Your task to perform on an android device: Go to notification settings Image 0: 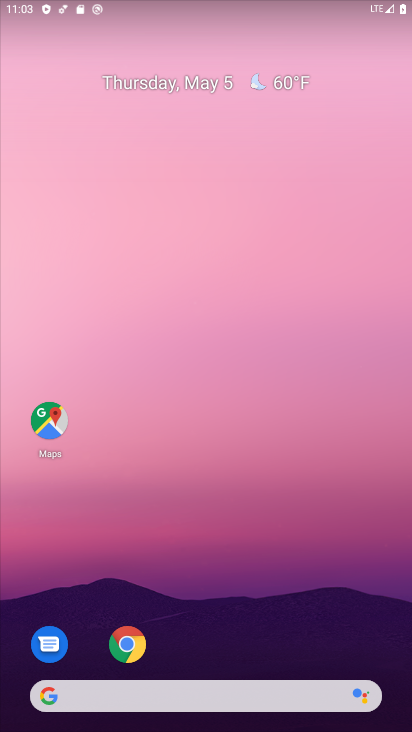
Step 0: drag from (380, 634) to (371, 103)
Your task to perform on an android device: Go to notification settings Image 1: 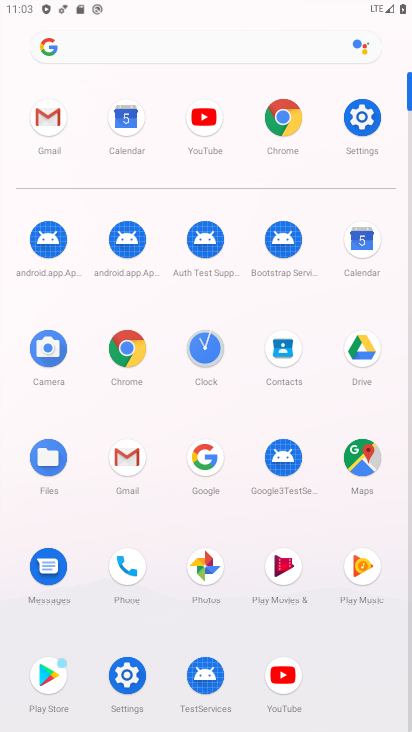
Step 1: click (131, 669)
Your task to perform on an android device: Go to notification settings Image 2: 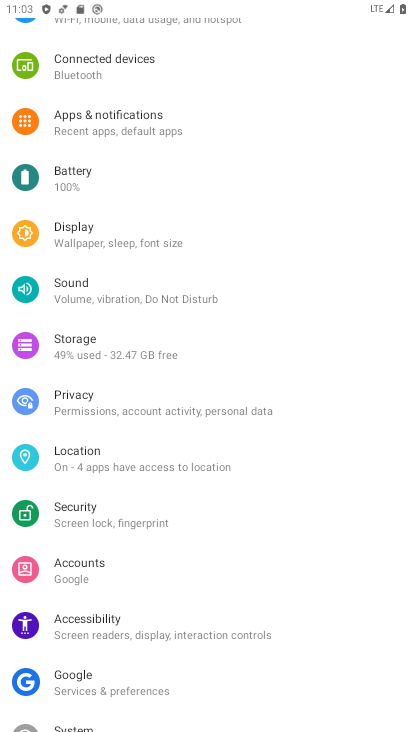
Step 2: drag from (220, 495) to (264, 199)
Your task to perform on an android device: Go to notification settings Image 3: 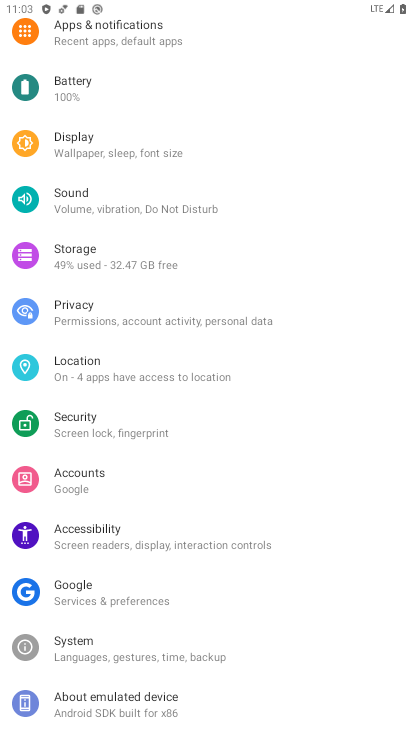
Step 3: click (128, 45)
Your task to perform on an android device: Go to notification settings Image 4: 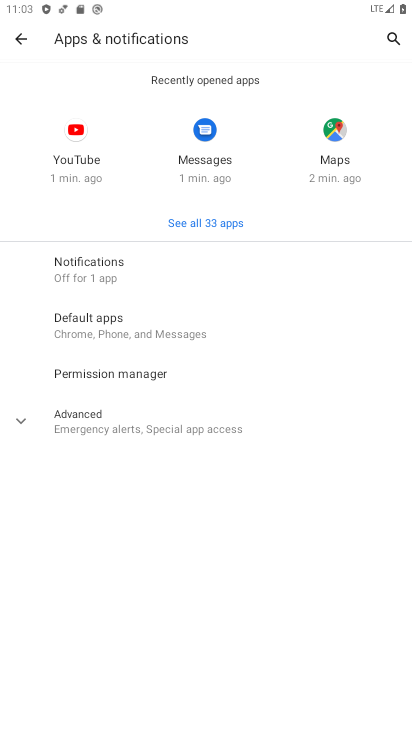
Step 4: click (106, 255)
Your task to perform on an android device: Go to notification settings Image 5: 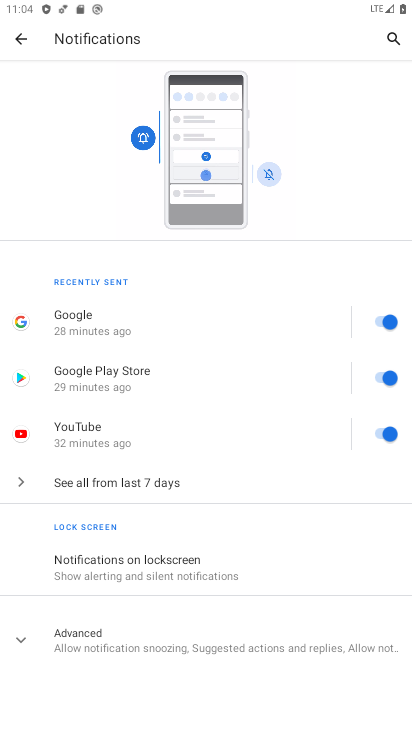
Step 5: task complete